Your task to perform on an android device: turn smart compose on in the gmail app Image 0: 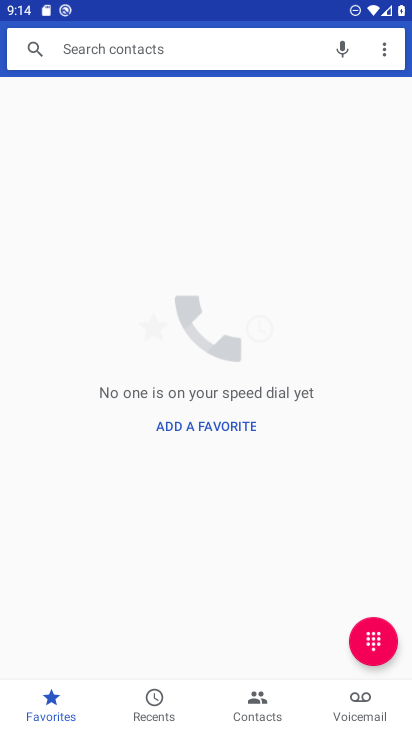
Step 0: press home button
Your task to perform on an android device: turn smart compose on in the gmail app Image 1: 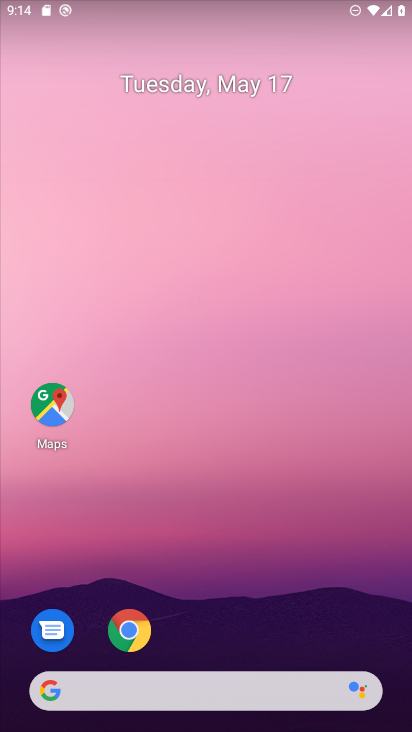
Step 1: drag from (349, 603) to (345, 129)
Your task to perform on an android device: turn smart compose on in the gmail app Image 2: 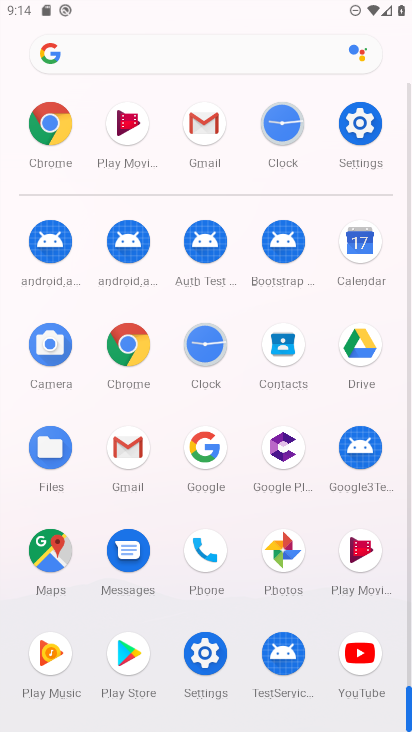
Step 2: click (116, 445)
Your task to perform on an android device: turn smart compose on in the gmail app Image 3: 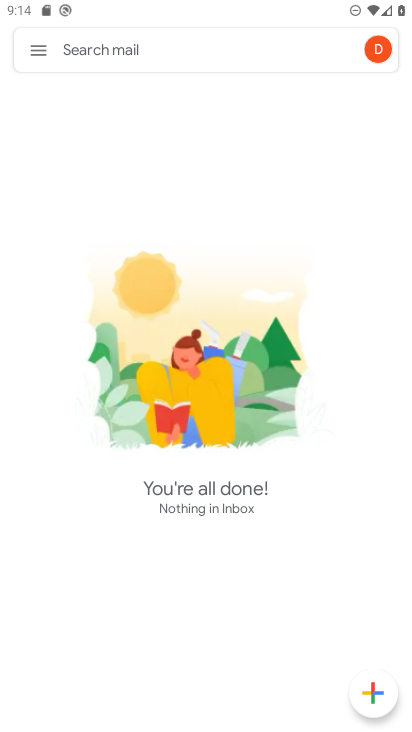
Step 3: click (37, 53)
Your task to perform on an android device: turn smart compose on in the gmail app Image 4: 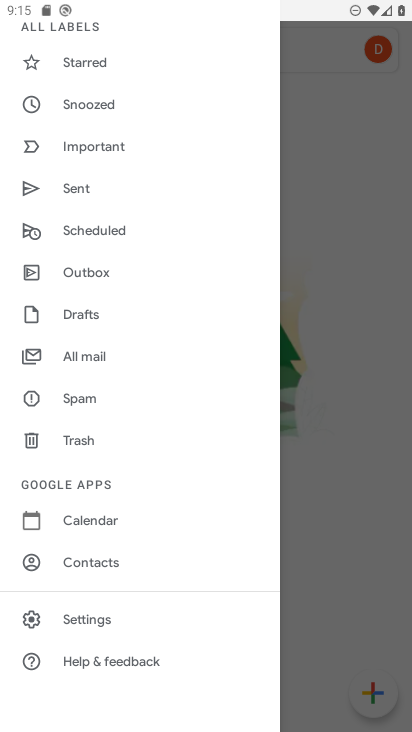
Step 4: click (104, 621)
Your task to perform on an android device: turn smart compose on in the gmail app Image 5: 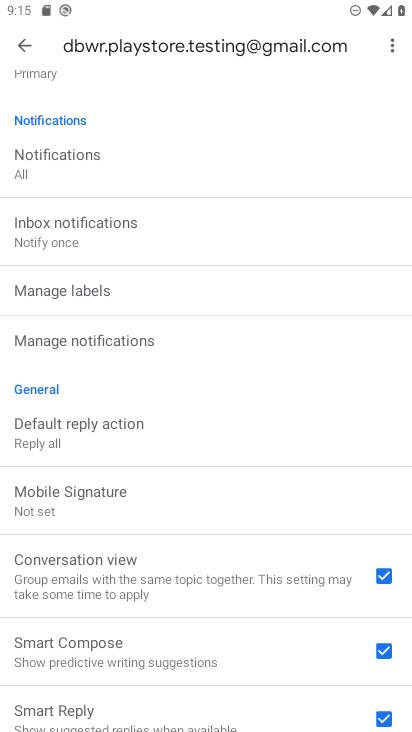
Step 5: task complete